Your task to perform on an android device: Go to display settings Image 0: 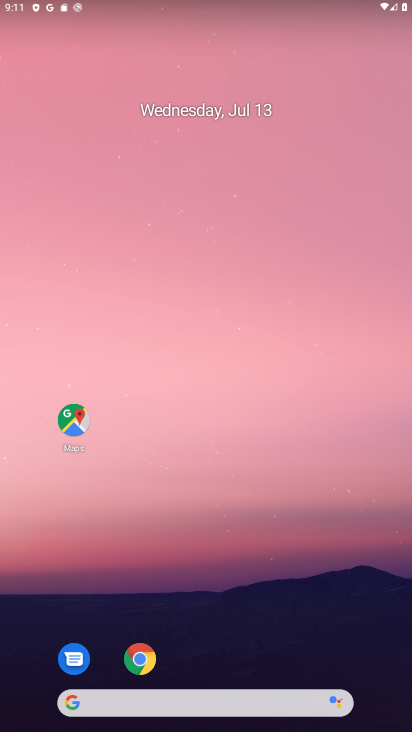
Step 0: drag from (207, 673) to (246, 167)
Your task to perform on an android device: Go to display settings Image 1: 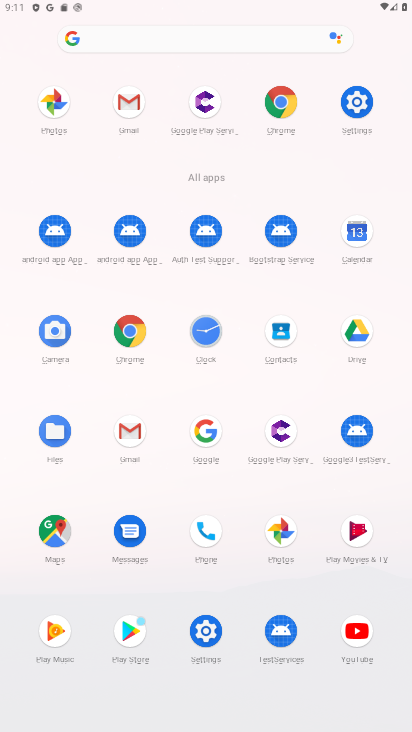
Step 1: click (354, 86)
Your task to perform on an android device: Go to display settings Image 2: 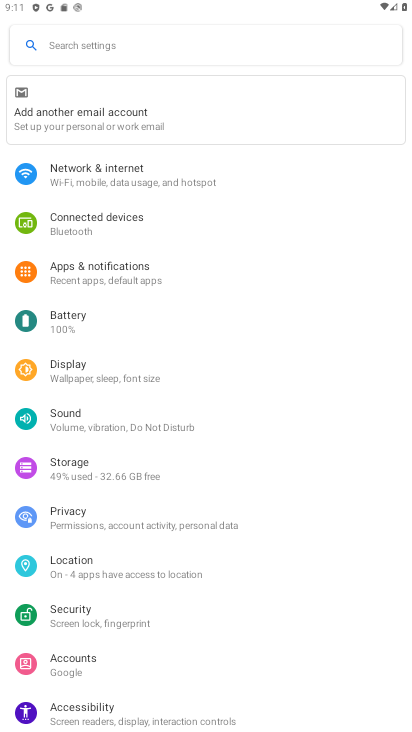
Step 2: click (151, 384)
Your task to perform on an android device: Go to display settings Image 3: 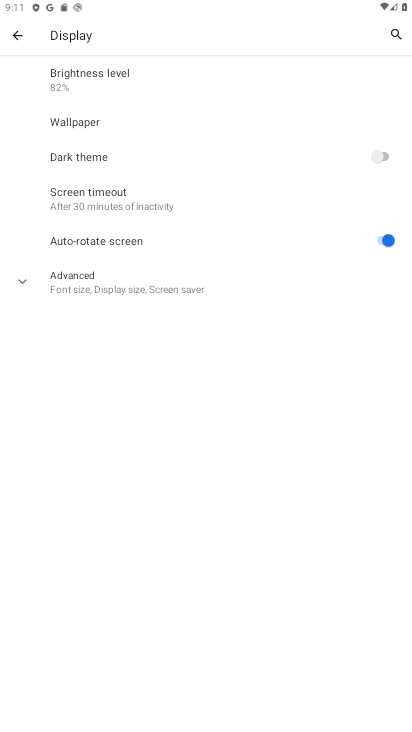
Step 3: task complete